Your task to perform on an android device: turn off airplane mode Image 0: 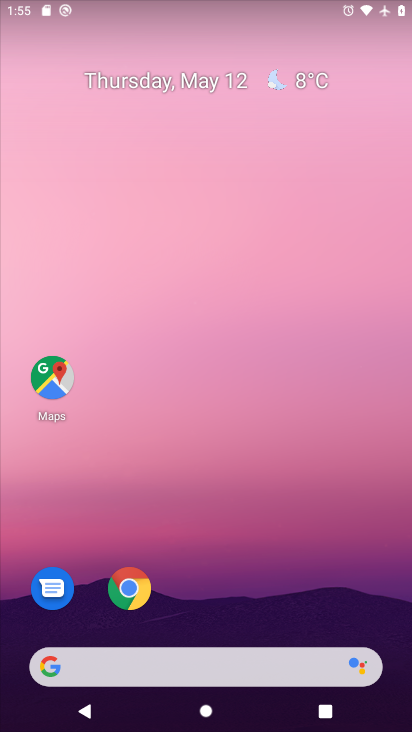
Step 0: drag from (266, 571) to (285, 122)
Your task to perform on an android device: turn off airplane mode Image 1: 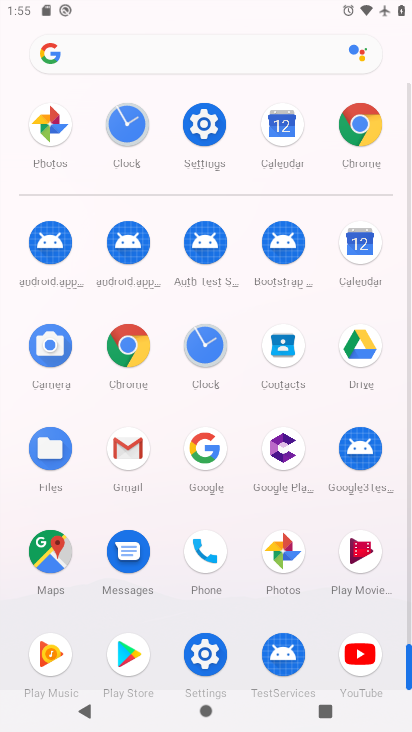
Step 1: click (190, 126)
Your task to perform on an android device: turn off airplane mode Image 2: 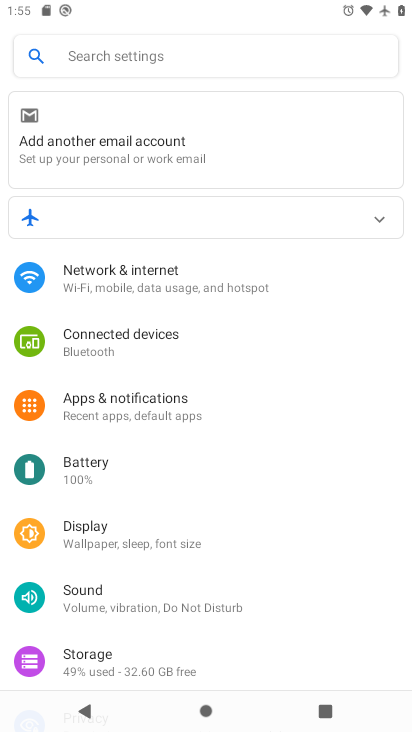
Step 2: click (101, 285)
Your task to perform on an android device: turn off airplane mode Image 3: 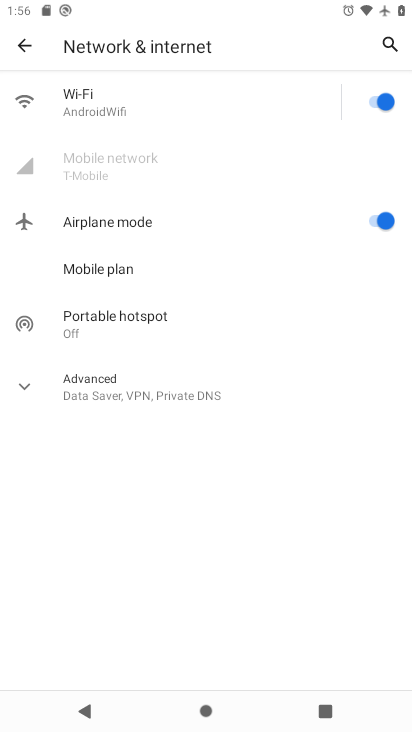
Step 3: click (385, 222)
Your task to perform on an android device: turn off airplane mode Image 4: 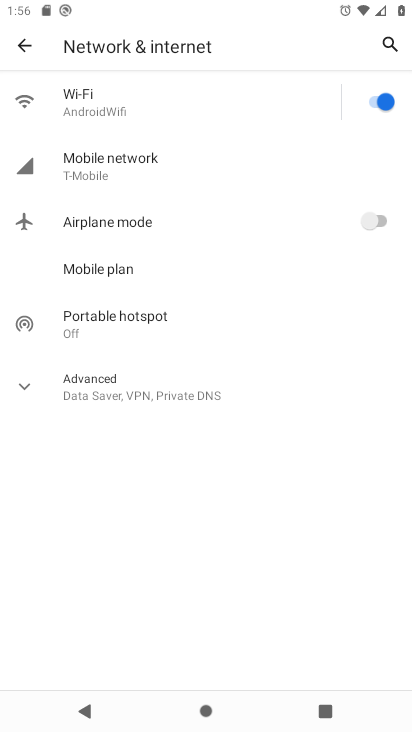
Step 4: task complete